Your task to perform on an android device: change alarm snooze length Image 0: 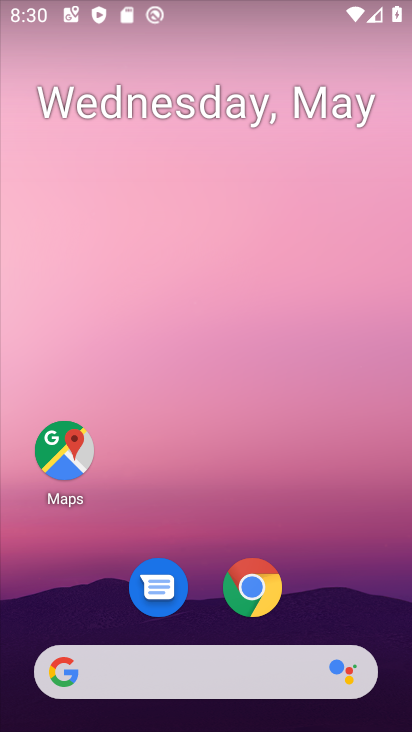
Step 0: drag from (365, 604) to (320, 58)
Your task to perform on an android device: change alarm snooze length Image 1: 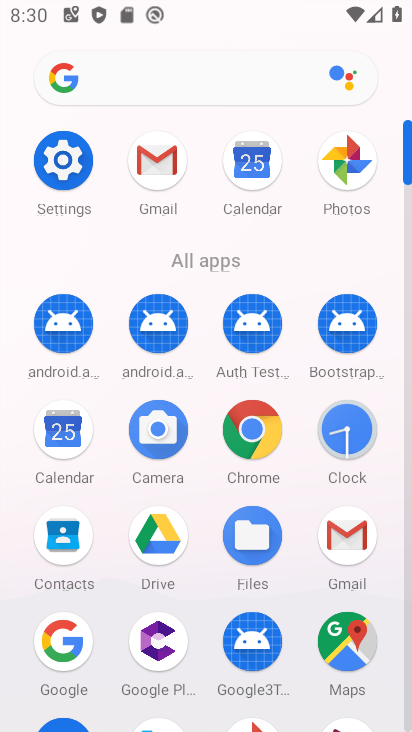
Step 1: click (349, 429)
Your task to perform on an android device: change alarm snooze length Image 2: 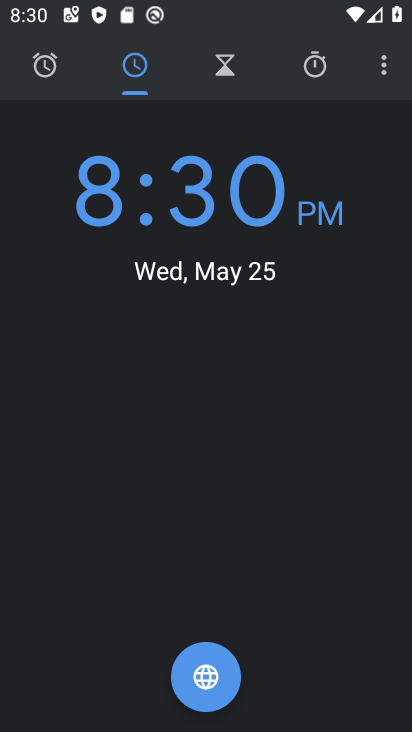
Step 2: click (387, 76)
Your task to perform on an android device: change alarm snooze length Image 3: 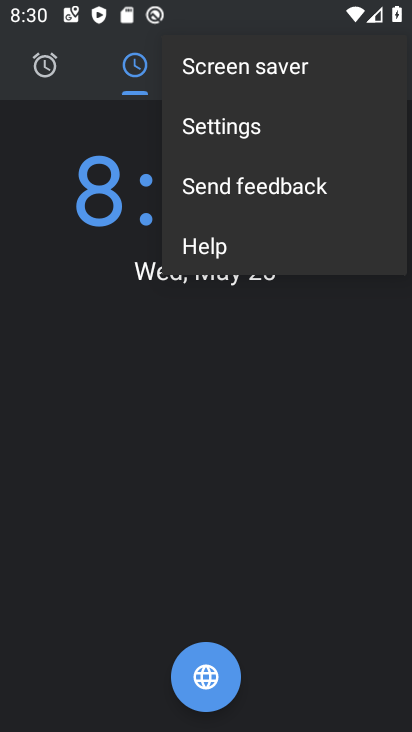
Step 3: click (188, 122)
Your task to perform on an android device: change alarm snooze length Image 4: 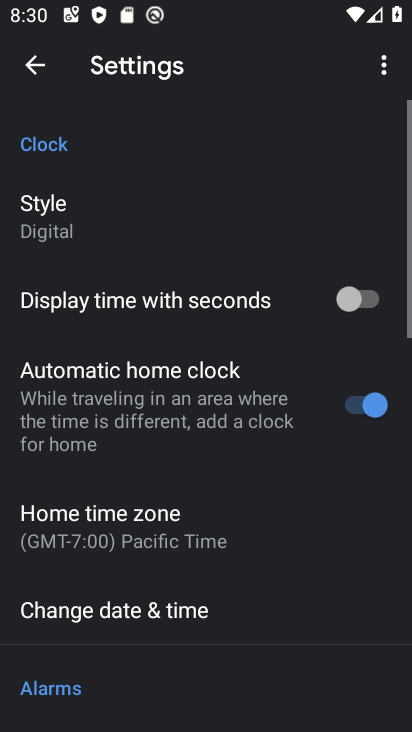
Step 4: drag from (239, 579) to (218, 82)
Your task to perform on an android device: change alarm snooze length Image 5: 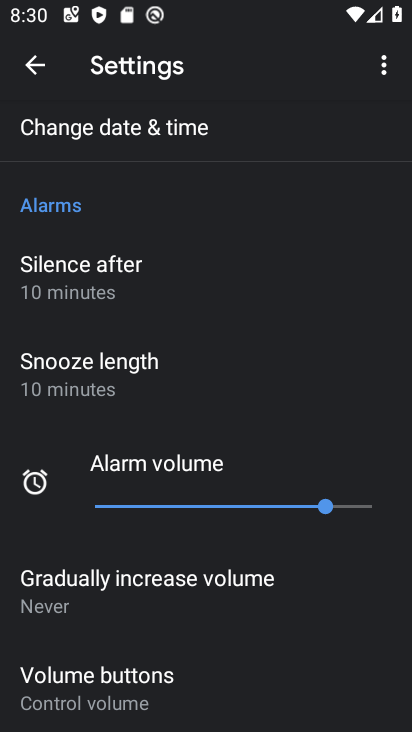
Step 5: click (82, 366)
Your task to perform on an android device: change alarm snooze length Image 6: 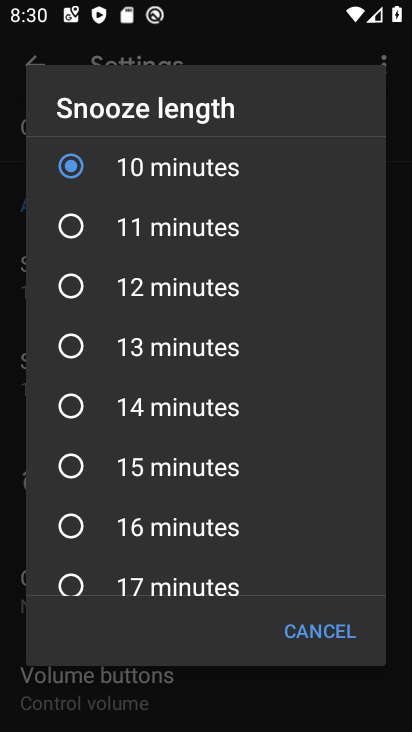
Step 6: click (68, 449)
Your task to perform on an android device: change alarm snooze length Image 7: 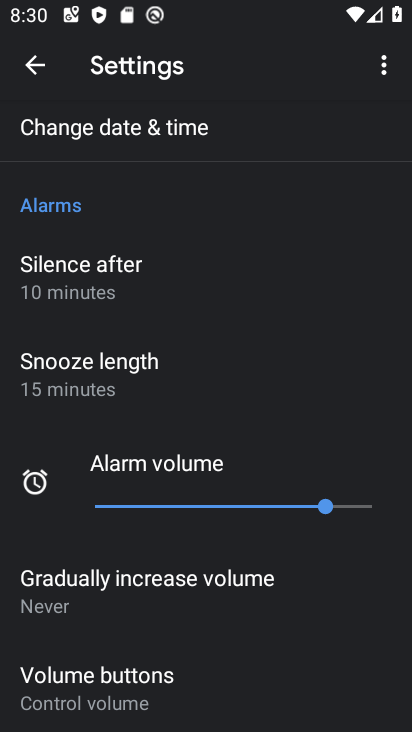
Step 7: task complete